Your task to perform on an android device: Go to settings Image 0: 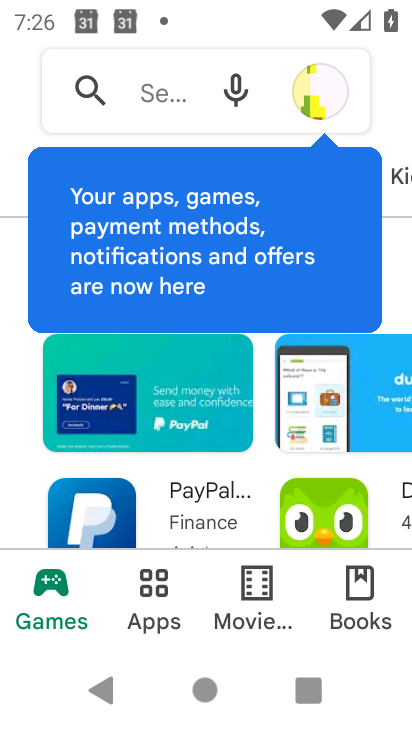
Step 0: press back button
Your task to perform on an android device: Go to settings Image 1: 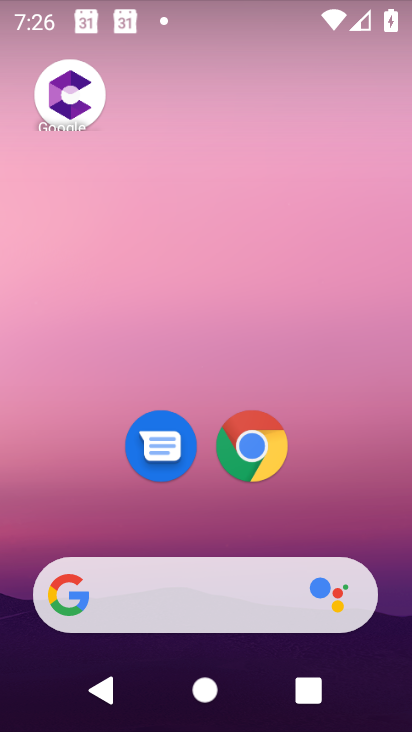
Step 1: drag from (398, 639) to (260, 30)
Your task to perform on an android device: Go to settings Image 2: 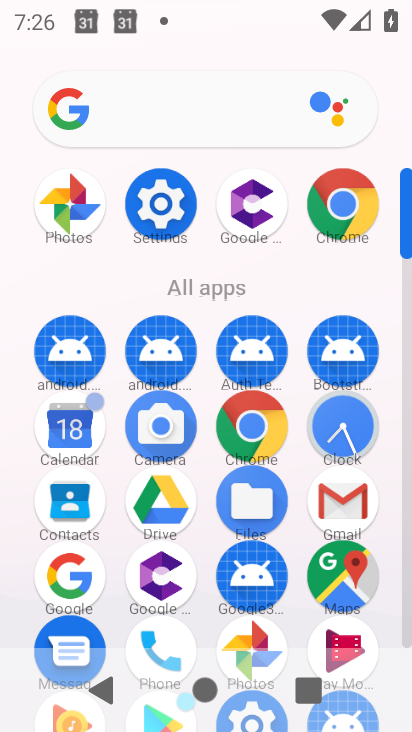
Step 2: drag from (20, 549) to (22, 200)
Your task to perform on an android device: Go to settings Image 3: 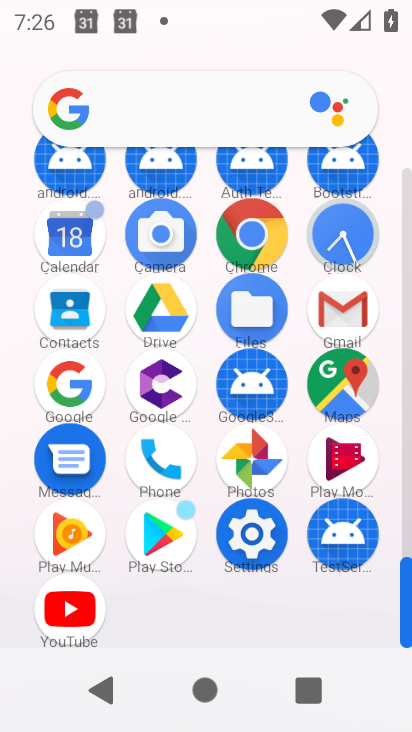
Step 3: click (249, 531)
Your task to perform on an android device: Go to settings Image 4: 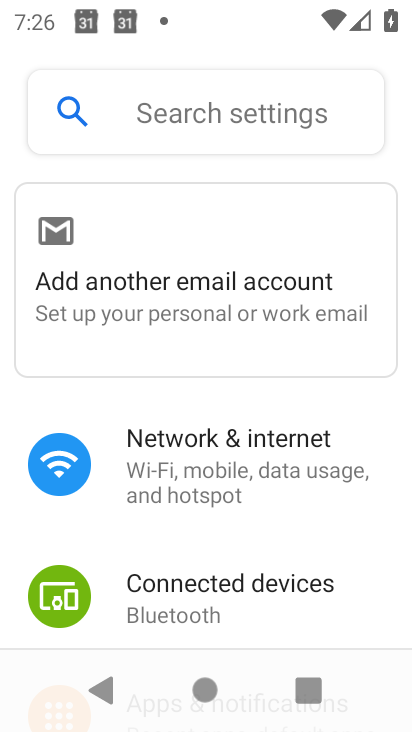
Step 4: task complete